Your task to perform on an android device: refresh tabs in the chrome app Image 0: 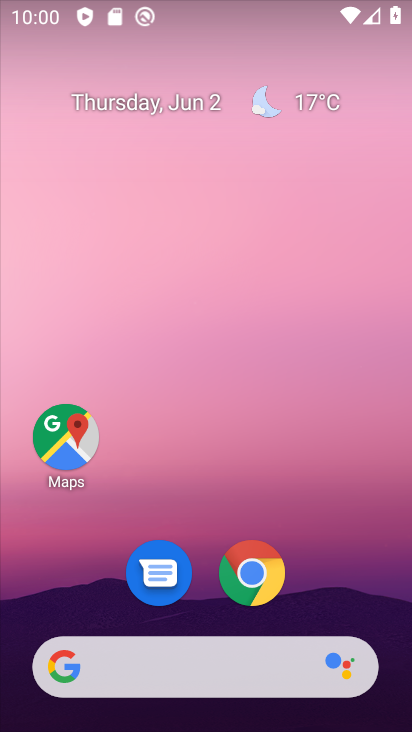
Step 0: click (252, 573)
Your task to perform on an android device: refresh tabs in the chrome app Image 1: 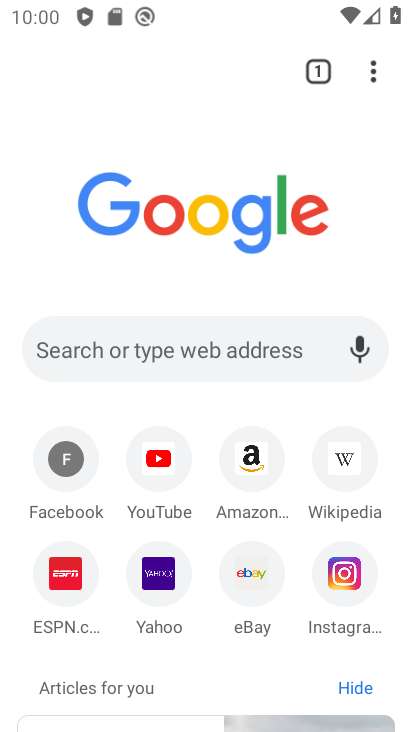
Step 1: click (375, 73)
Your task to perform on an android device: refresh tabs in the chrome app Image 2: 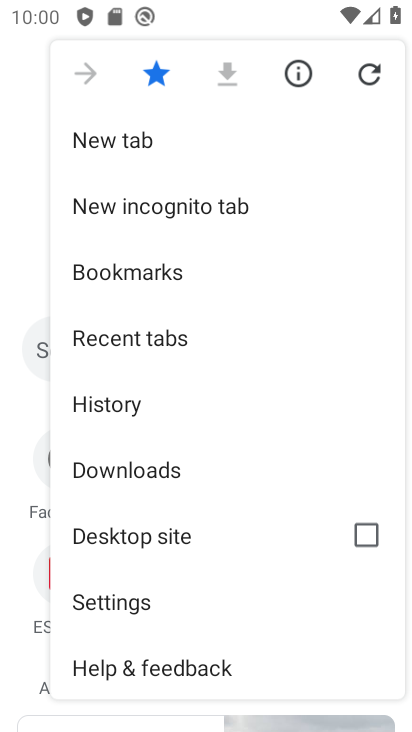
Step 2: click (375, 73)
Your task to perform on an android device: refresh tabs in the chrome app Image 3: 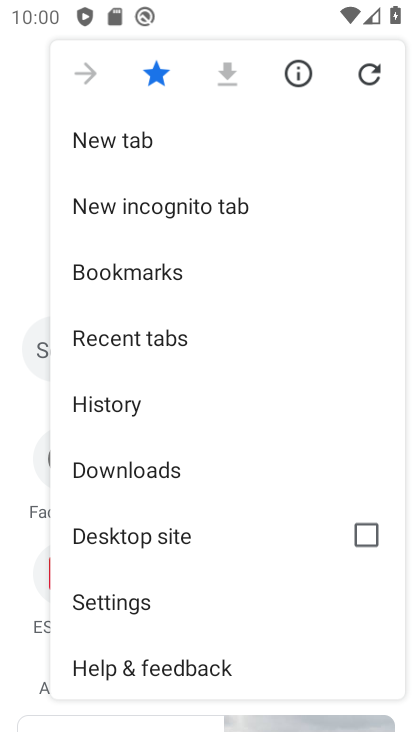
Step 3: click (375, 73)
Your task to perform on an android device: refresh tabs in the chrome app Image 4: 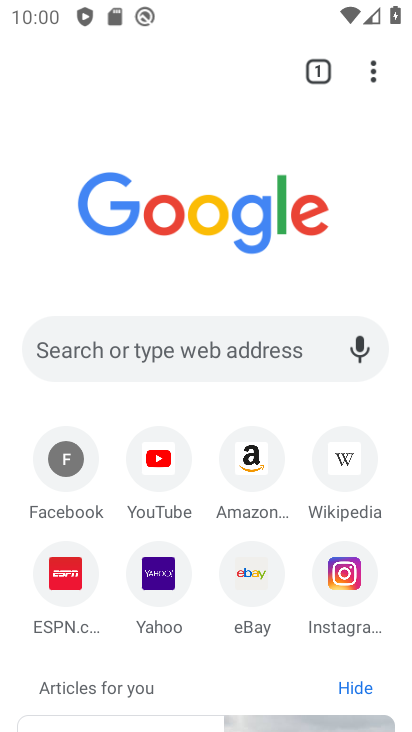
Step 4: task complete